Your task to perform on an android device: toggle priority inbox in the gmail app Image 0: 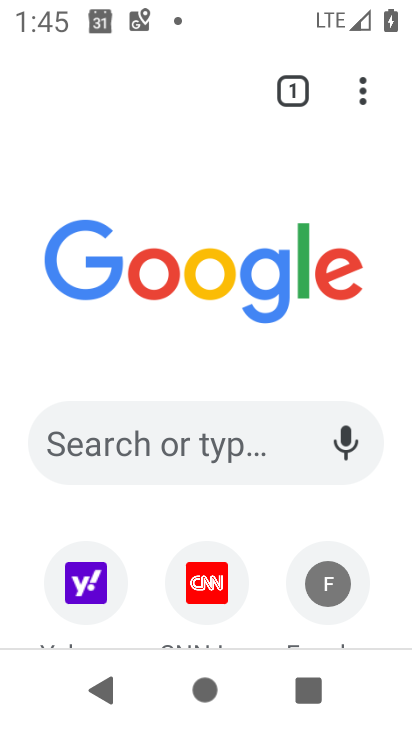
Step 0: press home button
Your task to perform on an android device: toggle priority inbox in the gmail app Image 1: 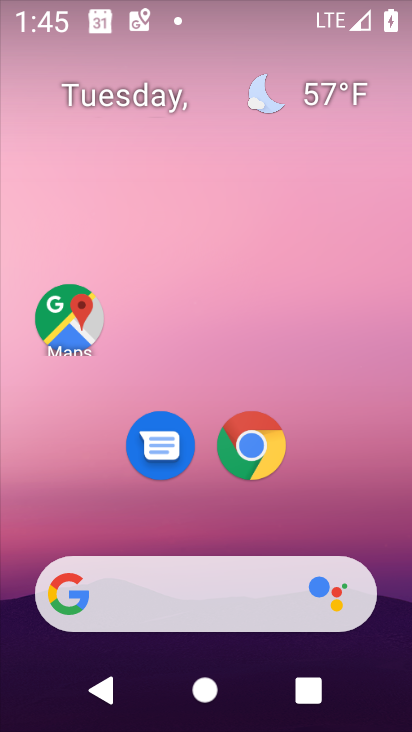
Step 1: drag from (379, 492) to (357, 68)
Your task to perform on an android device: toggle priority inbox in the gmail app Image 2: 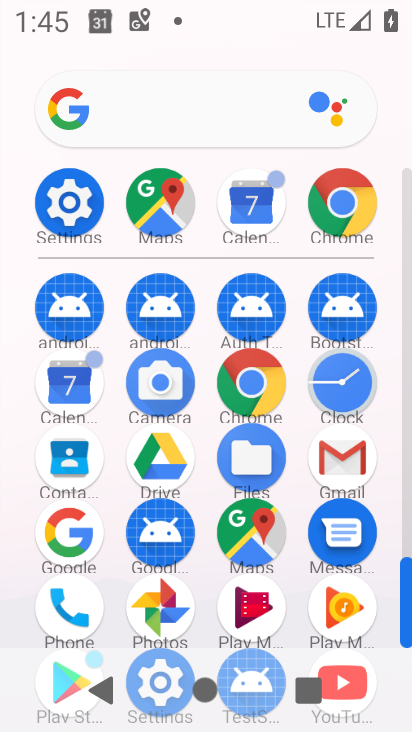
Step 2: click (352, 458)
Your task to perform on an android device: toggle priority inbox in the gmail app Image 3: 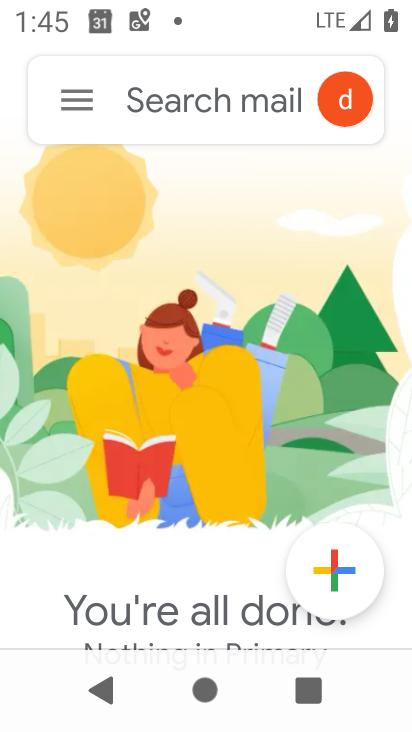
Step 3: click (77, 103)
Your task to perform on an android device: toggle priority inbox in the gmail app Image 4: 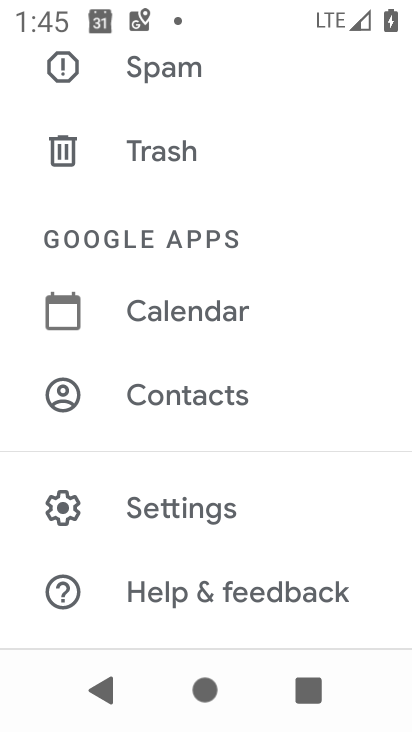
Step 4: drag from (333, 201) to (344, 378)
Your task to perform on an android device: toggle priority inbox in the gmail app Image 5: 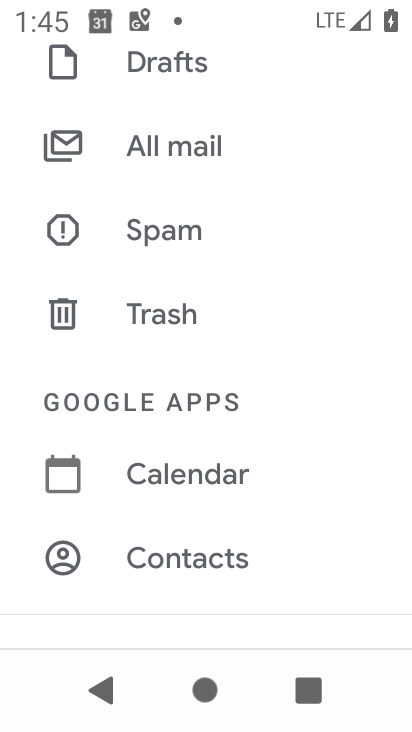
Step 5: drag from (321, 201) to (321, 319)
Your task to perform on an android device: toggle priority inbox in the gmail app Image 6: 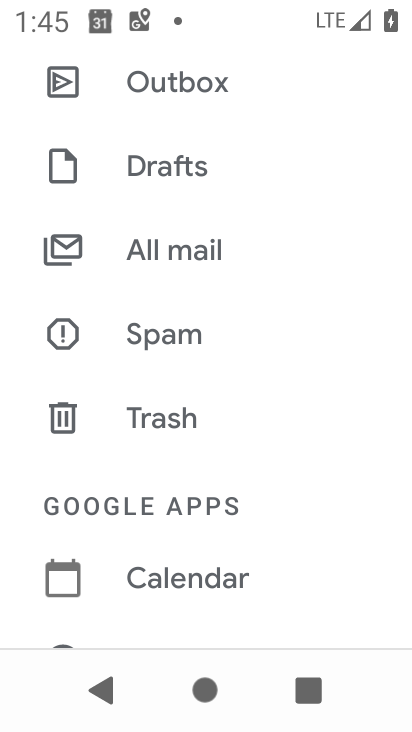
Step 6: drag from (329, 157) to (337, 318)
Your task to perform on an android device: toggle priority inbox in the gmail app Image 7: 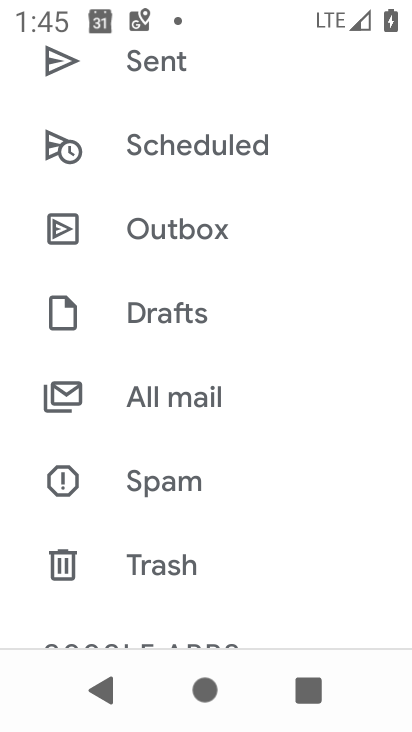
Step 7: drag from (328, 141) to (330, 346)
Your task to perform on an android device: toggle priority inbox in the gmail app Image 8: 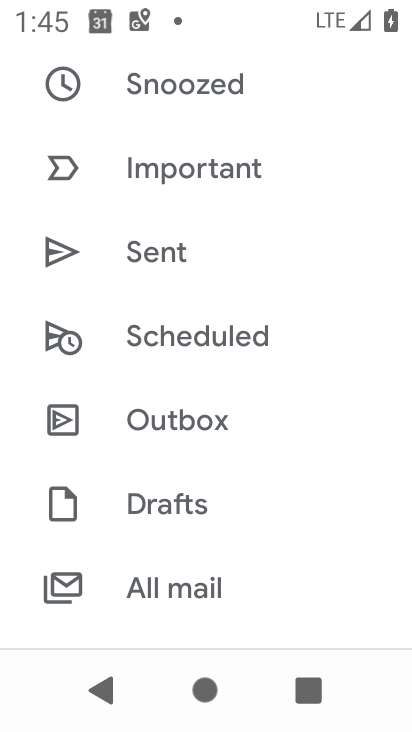
Step 8: drag from (325, 150) to (340, 312)
Your task to perform on an android device: toggle priority inbox in the gmail app Image 9: 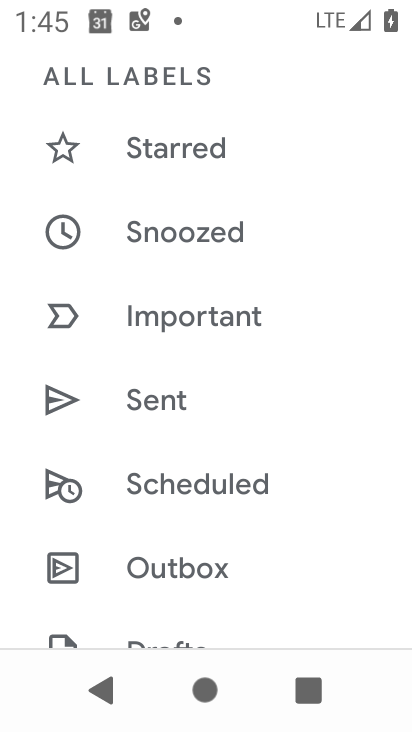
Step 9: drag from (337, 137) to (346, 317)
Your task to perform on an android device: toggle priority inbox in the gmail app Image 10: 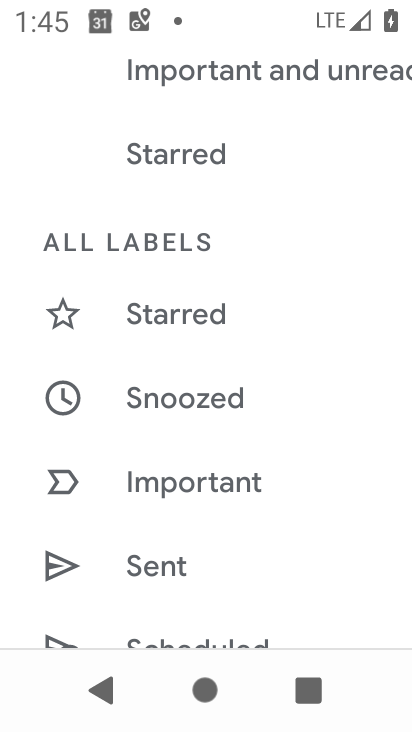
Step 10: drag from (336, 139) to (334, 303)
Your task to perform on an android device: toggle priority inbox in the gmail app Image 11: 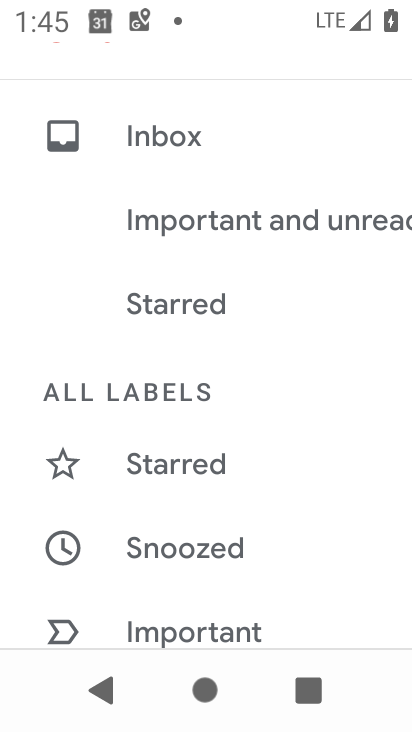
Step 11: drag from (315, 131) to (306, 307)
Your task to perform on an android device: toggle priority inbox in the gmail app Image 12: 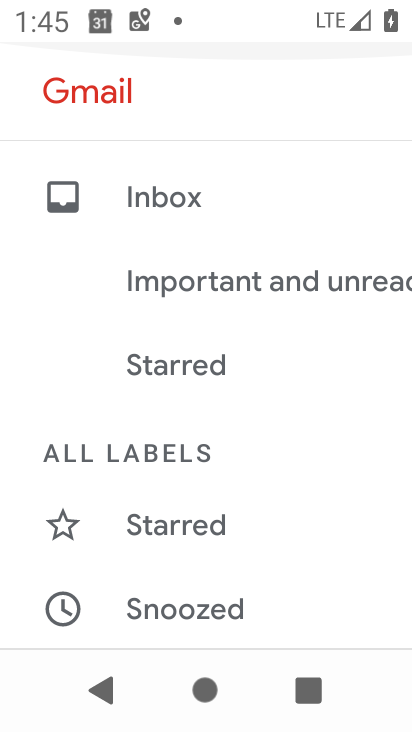
Step 12: drag from (306, 307) to (319, 210)
Your task to perform on an android device: toggle priority inbox in the gmail app Image 13: 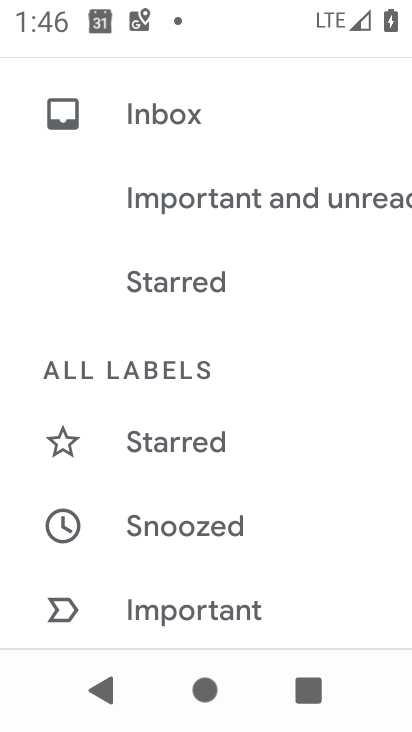
Step 13: drag from (315, 320) to (324, 220)
Your task to perform on an android device: toggle priority inbox in the gmail app Image 14: 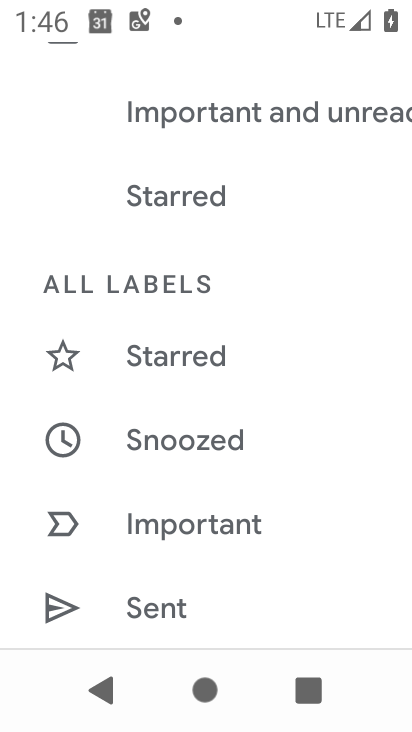
Step 14: drag from (309, 330) to (303, 219)
Your task to perform on an android device: toggle priority inbox in the gmail app Image 15: 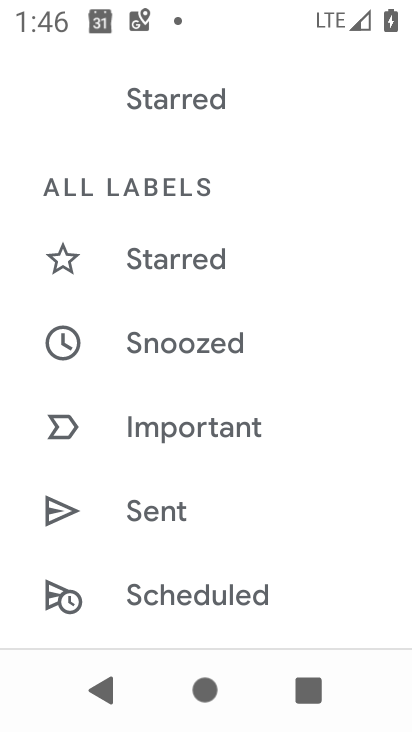
Step 15: drag from (309, 386) to (325, 269)
Your task to perform on an android device: toggle priority inbox in the gmail app Image 16: 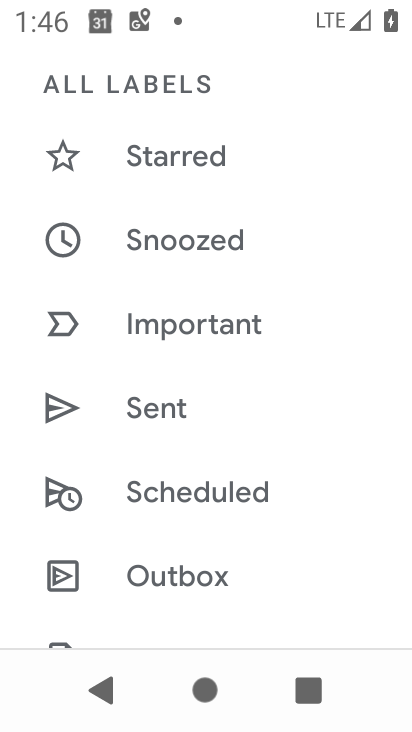
Step 16: drag from (326, 467) to (342, 357)
Your task to perform on an android device: toggle priority inbox in the gmail app Image 17: 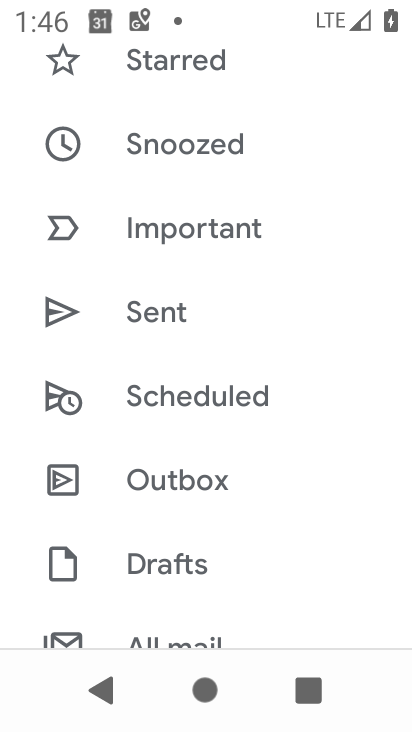
Step 17: drag from (333, 498) to (330, 329)
Your task to perform on an android device: toggle priority inbox in the gmail app Image 18: 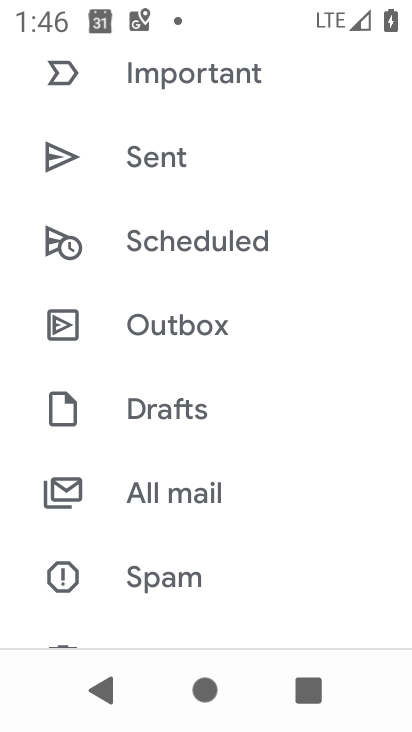
Step 18: drag from (341, 467) to (342, 315)
Your task to perform on an android device: toggle priority inbox in the gmail app Image 19: 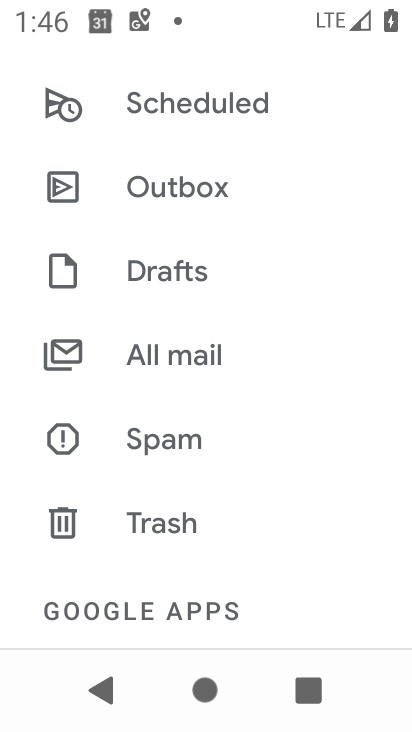
Step 19: drag from (335, 528) to (328, 356)
Your task to perform on an android device: toggle priority inbox in the gmail app Image 20: 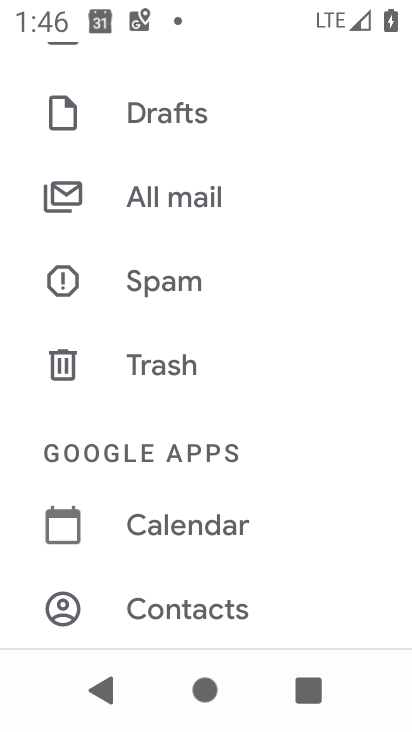
Step 20: drag from (347, 540) to (336, 332)
Your task to perform on an android device: toggle priority inbox in the gmail app Image 21: 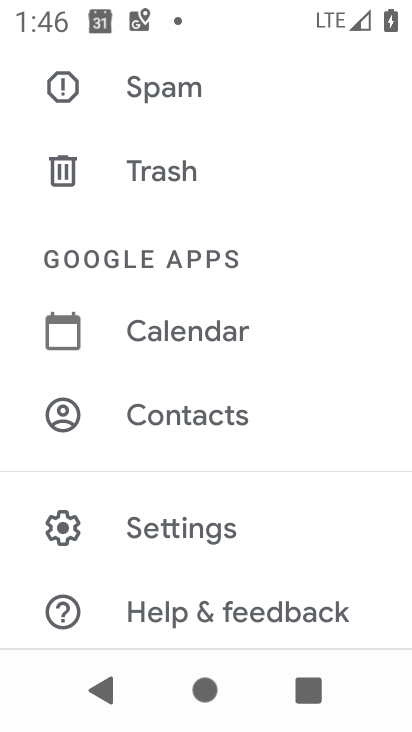
Step 21: click (228, 530)
Your task to perform on an android device: toggle priority inbox in the gmail app Image 22: 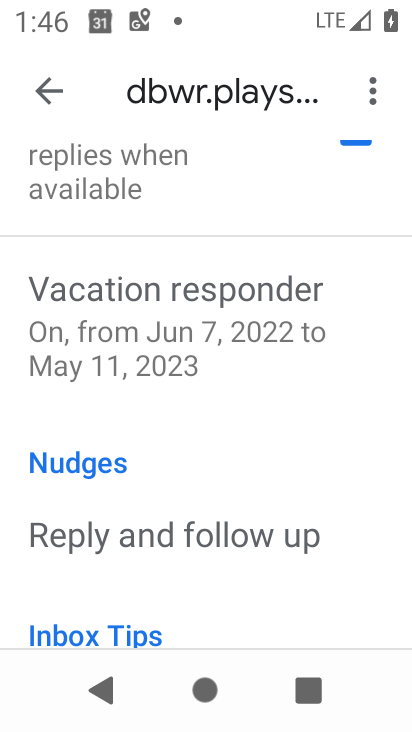
Step 22: drag from (325, 248) to (351, 419)
Your task to perform on an android device: toggle priority inbox in the gmail app Image 23: 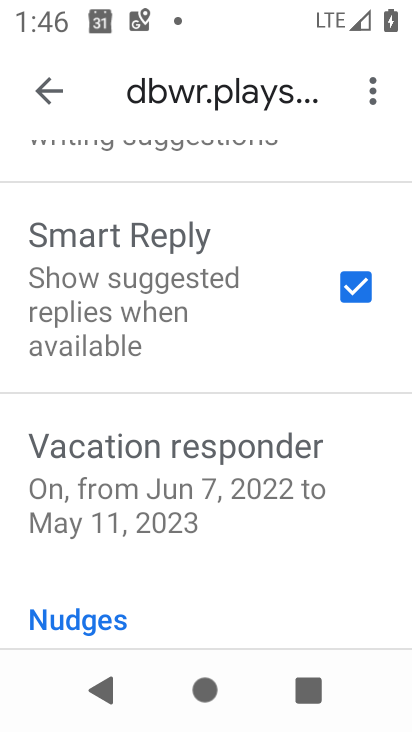
Step 23: drag from (286, 207) to (310, 394)
Your task to perform on an android device: toggle priority inbox in the gmail app Image 24: 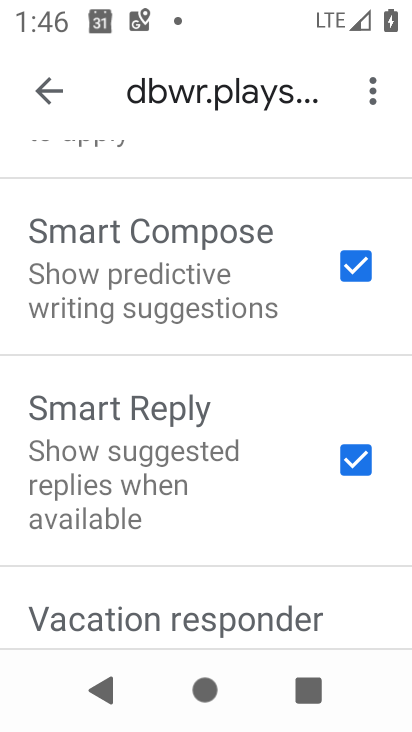
Step 24: drag from (298, 188) to (312, 356)
Your task to perform on an android device: toggle priority inbox in the gmail app Image 25: 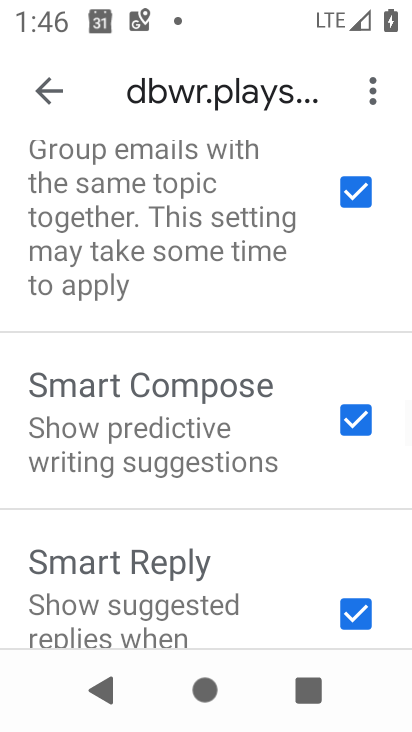
Step 25: drag from (290, 178) to (281, 367)
Your task to perform on an android device: toggle priority inbox in the gmail app Image 26: 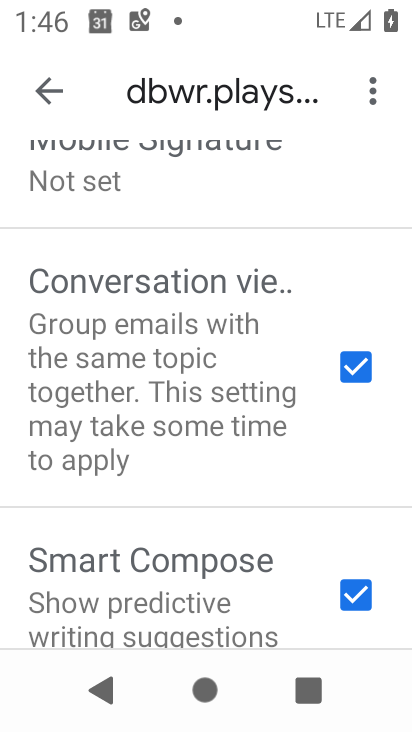
Step 26: drag from (300, 217) to (286, 357)
Your task to perform on an android device: toggle priority inbox in the gmail app Image 27: 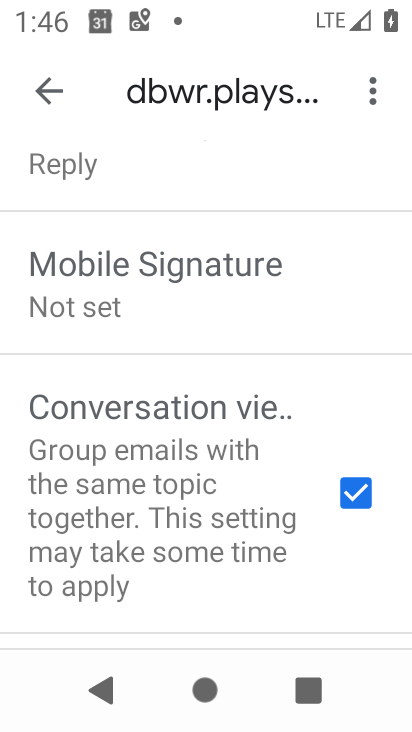
Step 27: drag from (293, 192) to (277, 351)
Your task to perform on an android device: toggle priority inbox in the gmail app Image 28: 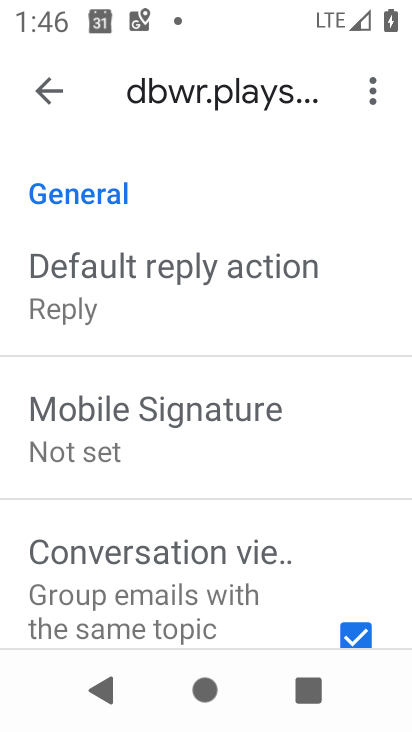
Step 28: drag from (272, 267) to (273, 331)
Your task to perform on an android device: toggle priority inbox in the gmail app Image 29: 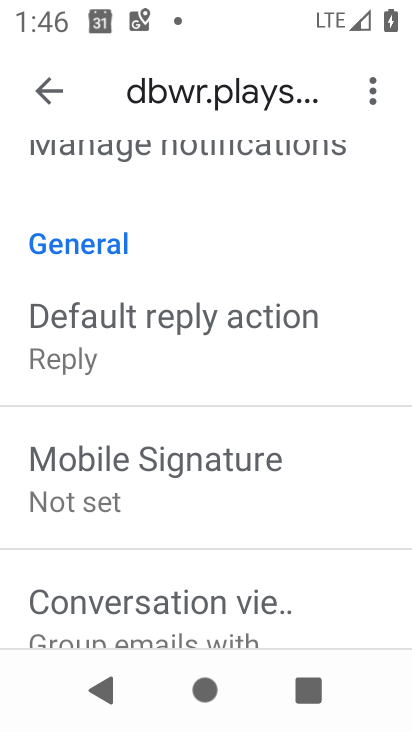
Step 29: drag from (281, 193) to (287, 340)
Your task to perform on an android device: toggle priority inbox in the gmail app Image 30: 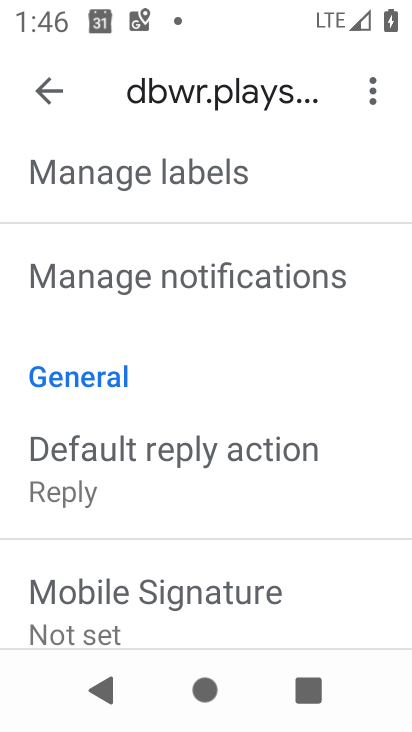
Step 30: drag from (283, 186) to (275, 345)
Your task to perform on an android device: toggle priority inbox in the gmail app Image 31: 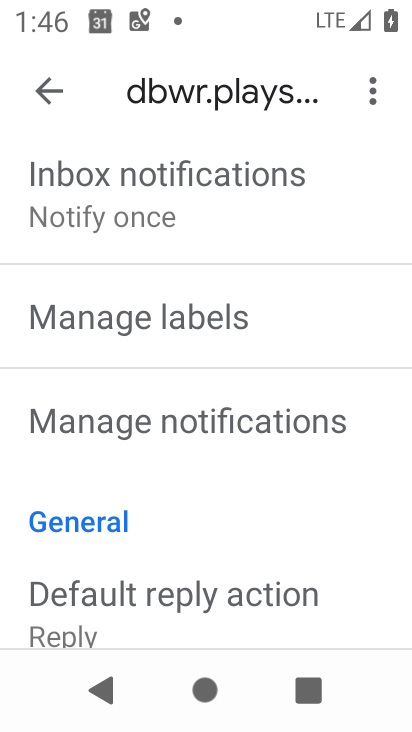
Step 31: drag from (281, 218) to (275, 345)
Your task to perform on an android device: toggle priority inbox in the gmail app Image 32: 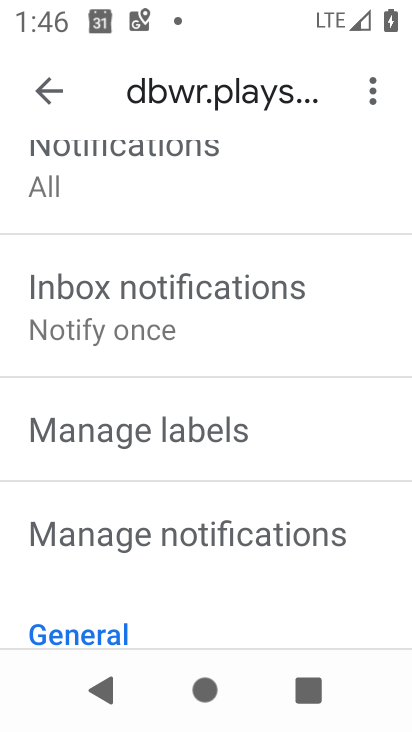
Step 32: drag from (347, 214) to (379, 355)
Your task to perform on an android device: toggle priority inbox in the gmail app Image 33: 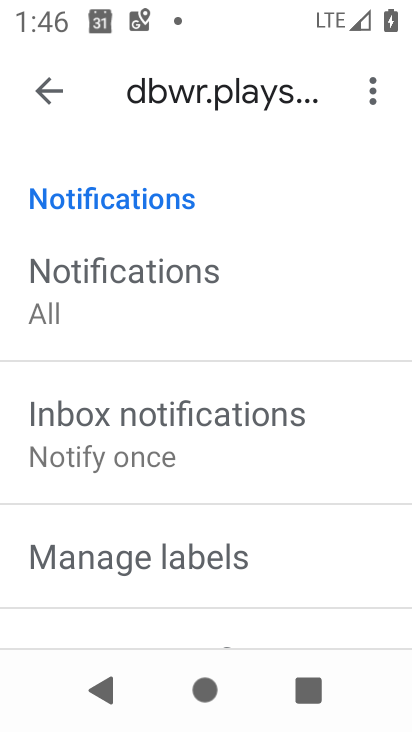
Step 33: drag from (345, 207) to (356, 380)
Your task to perform on an android device: toggle priority inbox in the gmail app Image 34: 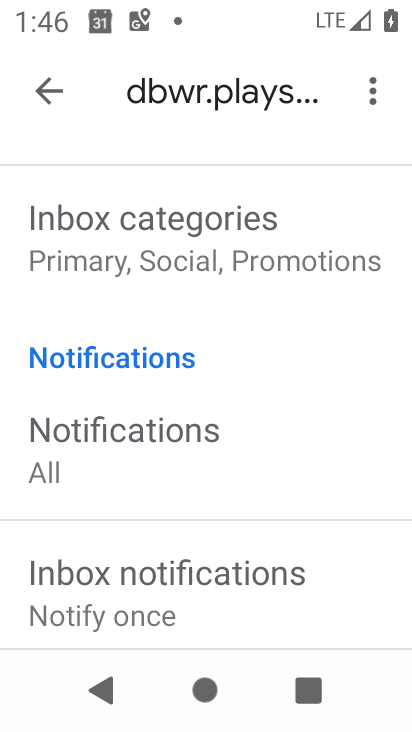
Step 34: drag from (316, 195) to (298, 403)
Your task to perform on an android device: toggle priority inbox in the gmail app Image 35: 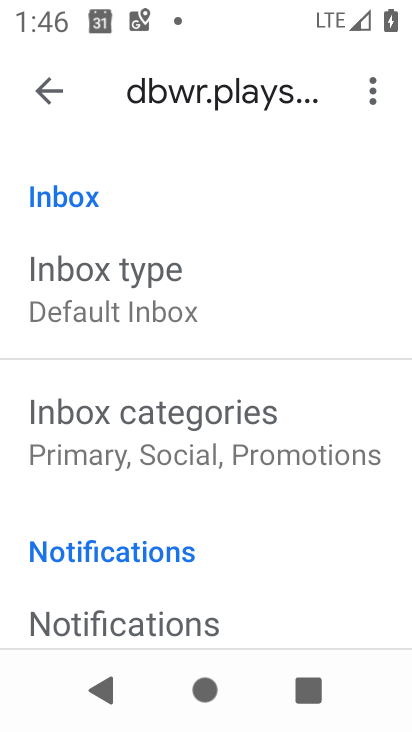
Step 35: click (151, 302)
Your task to perform on an android device: toggle priority inbox in the gmail app Image 36: 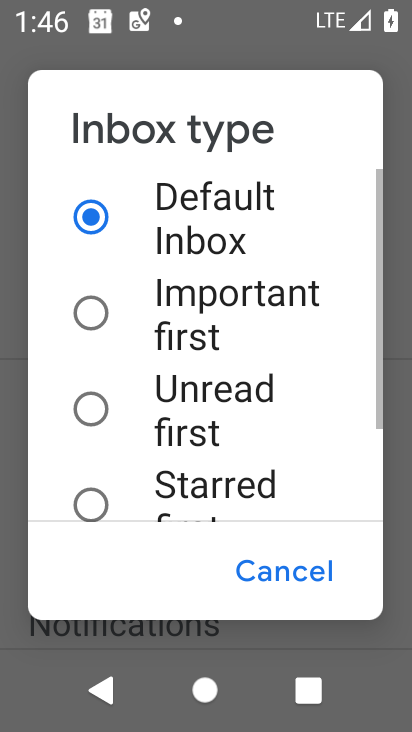
Step 36: drag from (257, 434) to (268, 295)
Your task to perform on an android device: toggle priority inbox in the gmail app Image 37: 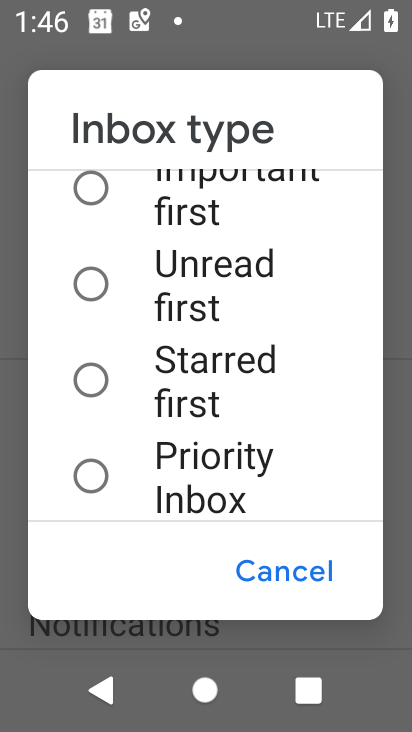
Step 37: drag from (300, 450) to (322, 320)
Your task to perform on an android device: toggle priority inbox in the gmail app Image 38: 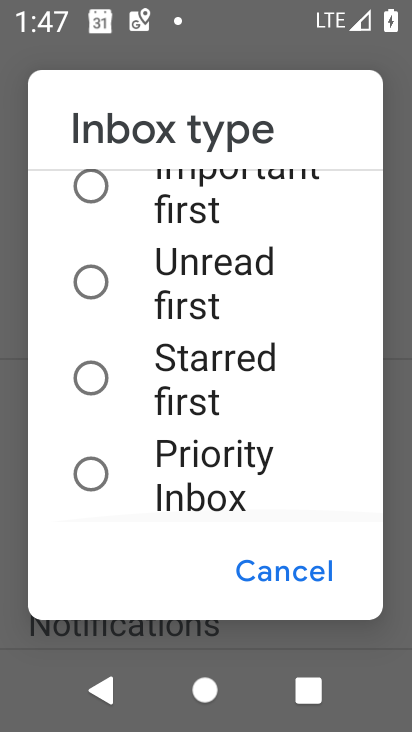
Step 38: click (212, 488)
Your task to perform on an android device: toggle priority inbox in the gmail app Image 39: 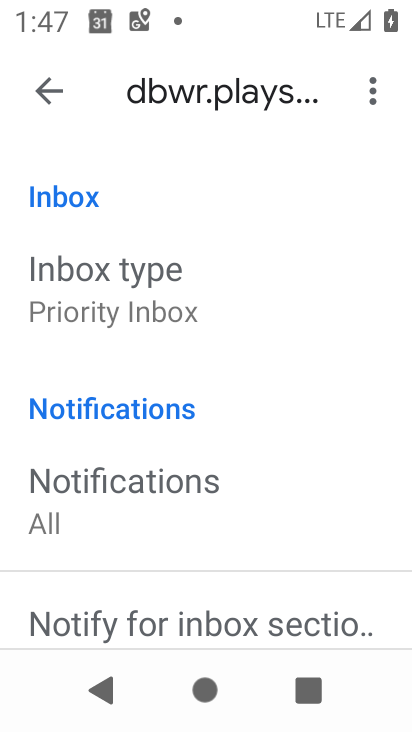
Step 39: task complete